Your task to perform on an android device: Go to sound settings Image 0: 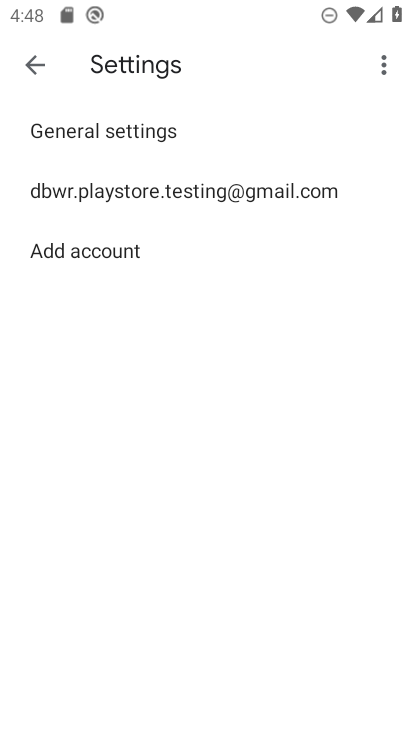
Step 0: press home button
Your task to perform on an android device: Go to sound settings Image 1: 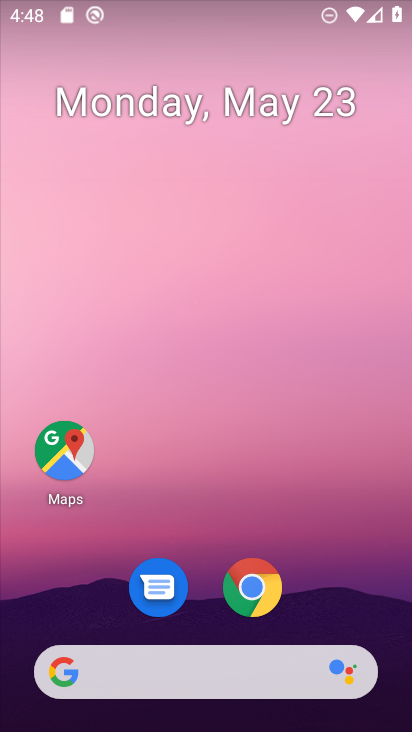
Step 1: drag from (194, 605) to (220, 193)
Your task to perform on an android device: Go to sound settings Image 2: 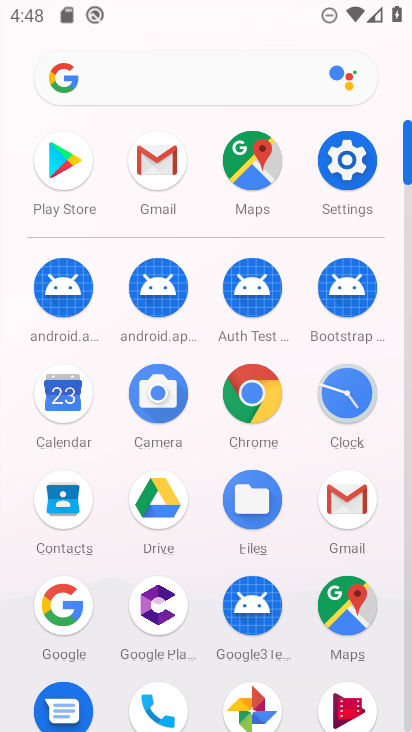
Step 2: drag from (205, 616) to (225, 194)
Your task to perform on an android device: Go to sound settings Image 3: 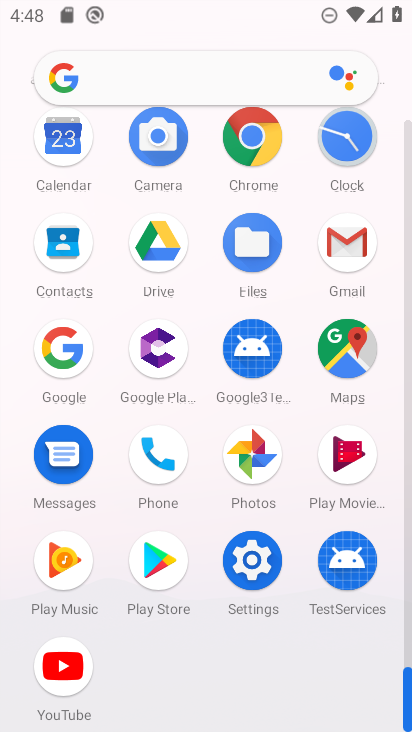
Step 3: click (256, 578)
Your task to perform on an android device: Go to sound settings Image 4: 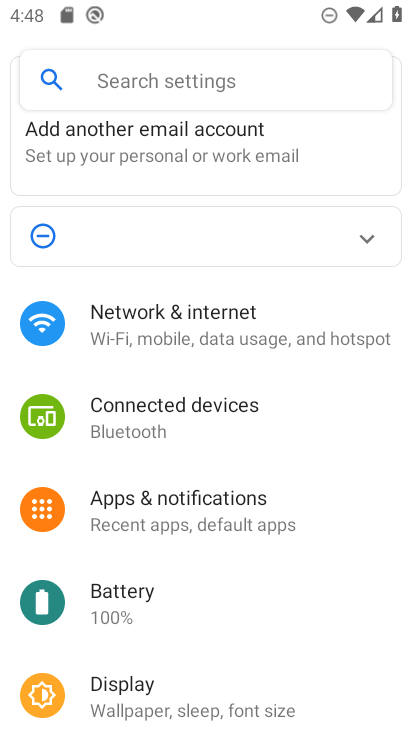
Step 4: drag from (214, 602) to (272, 223)
Your task to perform on an android device: Go to sound settings Image 5: 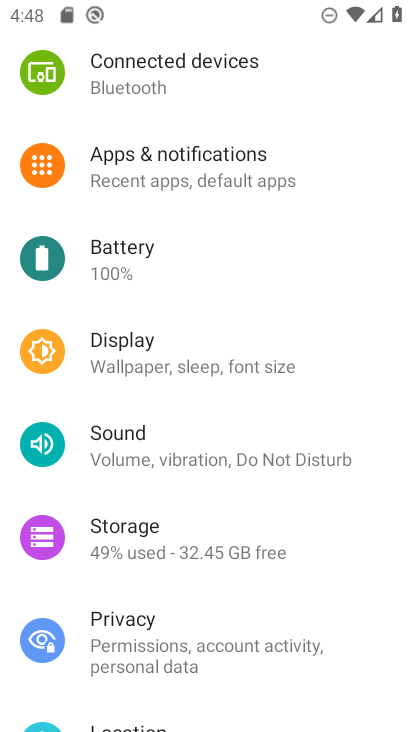
Step 5: click (221, 449)
Your task to perform on an android device: Go to sound settings Image 6: 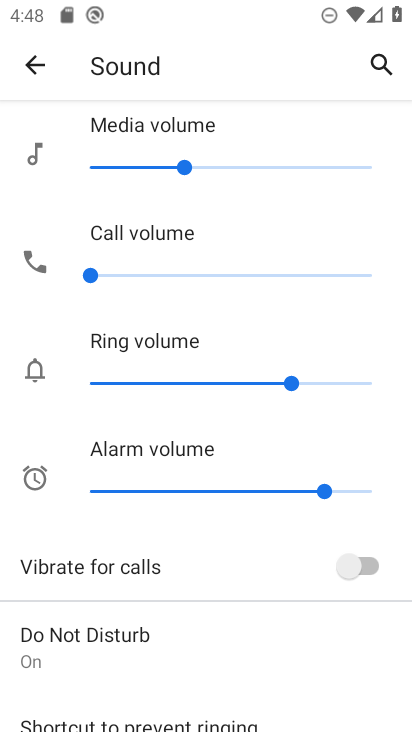
Step 6: task complete